Your task to perform on an android device: change the upload size in google photos Image 0: 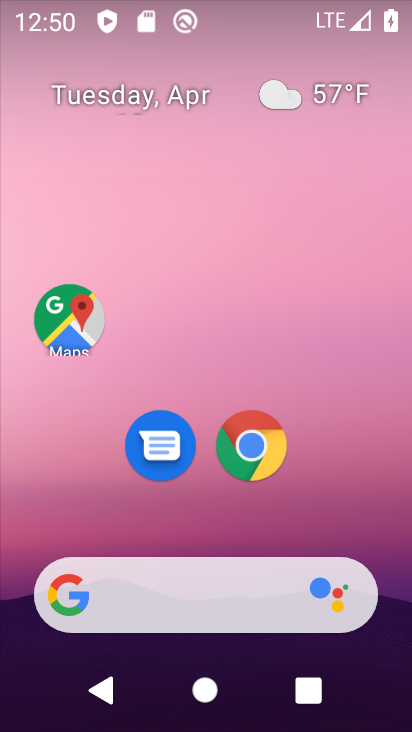
Step 0: drag from (351, 479) to (347, 94)
Your task to perform on an android device: change the upload size in google photos Image 1: 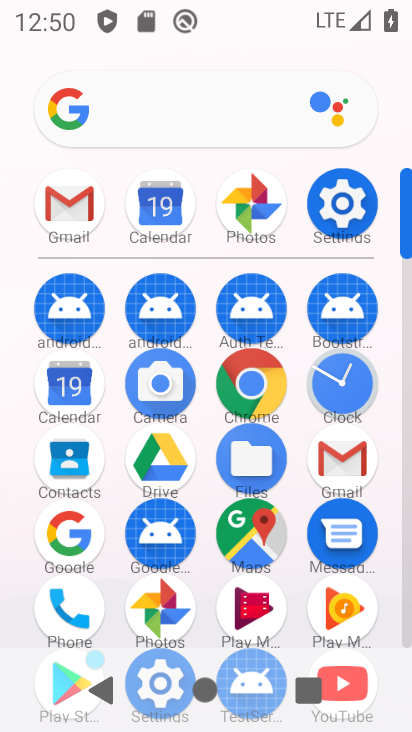
Step 1: click (254, 209)
Your task to perform on an android device: change the upload size in google photos Image 2: 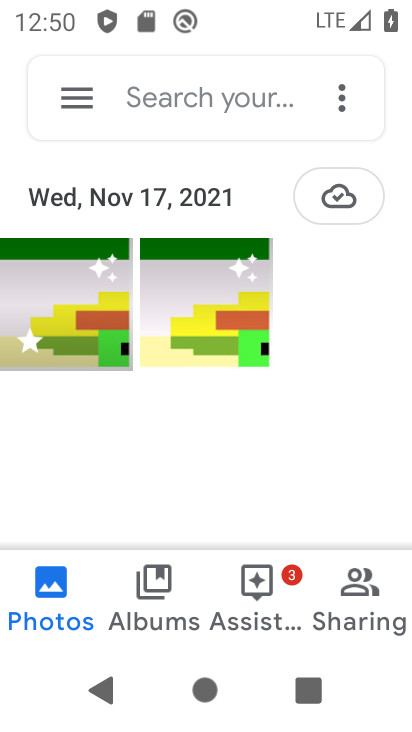
Step 2: click (70, 95)
Your task to perform on an android device: change the upload size in google photos Image 3: 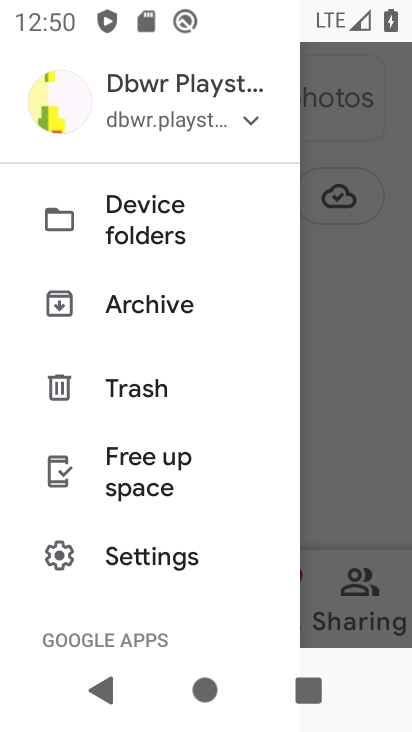
Step 3: click (165, 546)
Your task to perform on an android device: change the upload size in google photos Image 4: 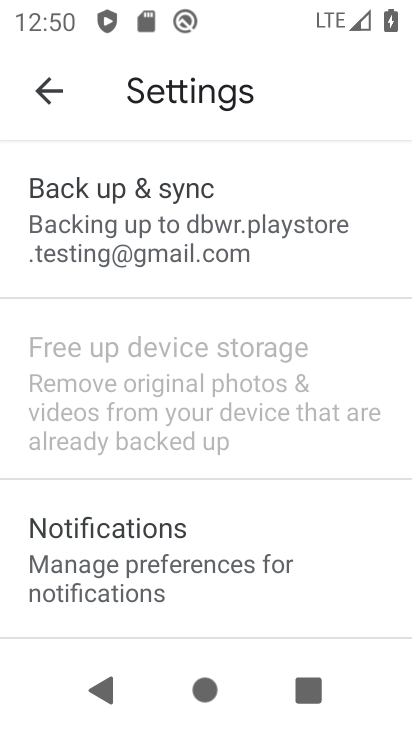
Step 4: click (241, 212)
Your task to perform on an android device: change the upload size in google photos Image 5: 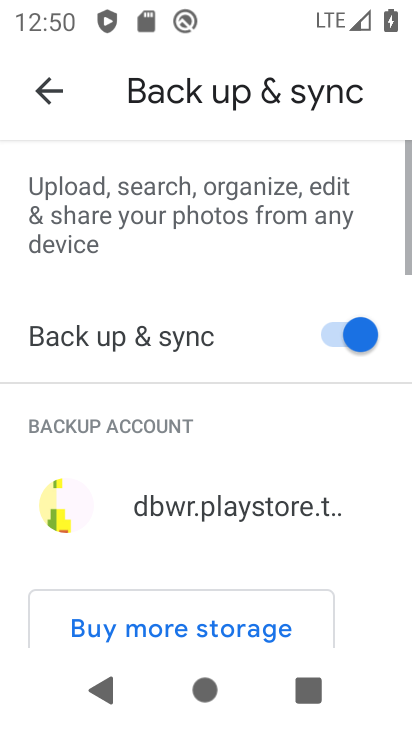
Step 5: drag from (190, 507) to (252, 169)
Your task to perform on an android device: change the upload size in google photos Image 6: 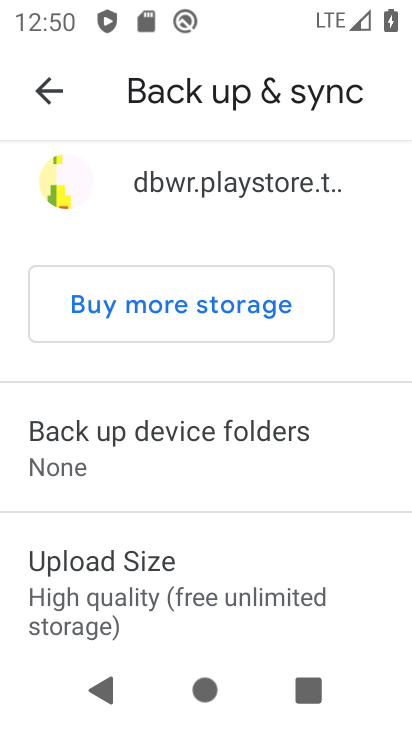
Step 6: drag from (186, 564) to (240, 229)
Your task to perform on an android device: change the upload size in google photos Image 7: 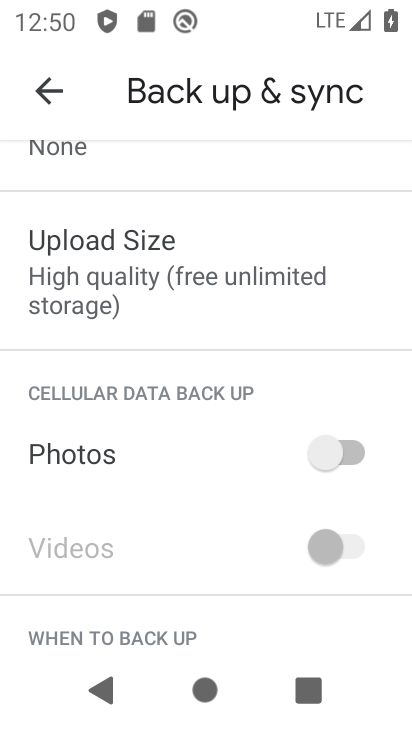
Step 7: click (215, 291)
Your task to perform on an android device: change the upload size in google photos Image 8: 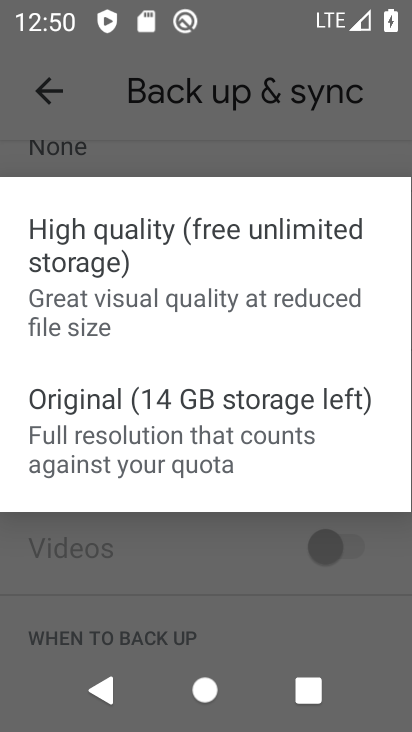
Step 8: click (164, 412)
Your task to perform on an android device: change the upload size in google photos Image 9: 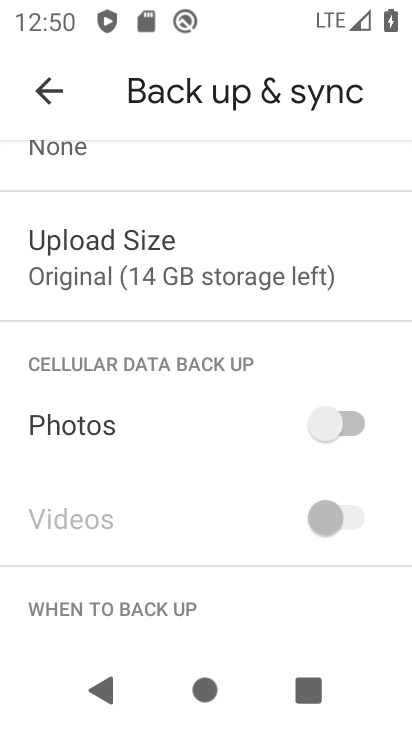
Step 9: task complete